Your task to perform on an android device: choose inbox layout in the gmail app Image 0: 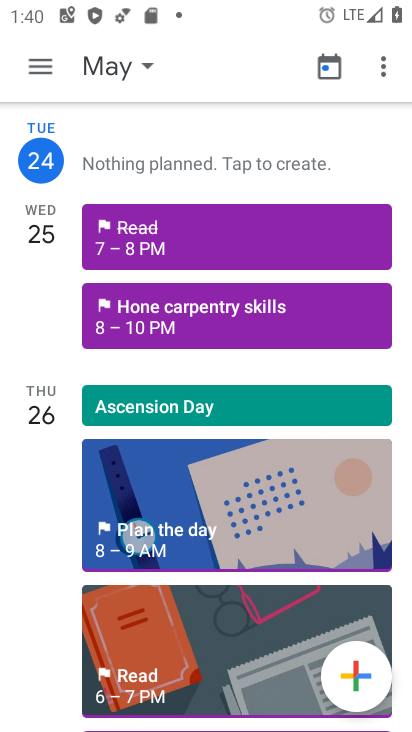
Step 0: press home button
Your task to perform on an android device: choose inbox layout in the gmail app Image 1: 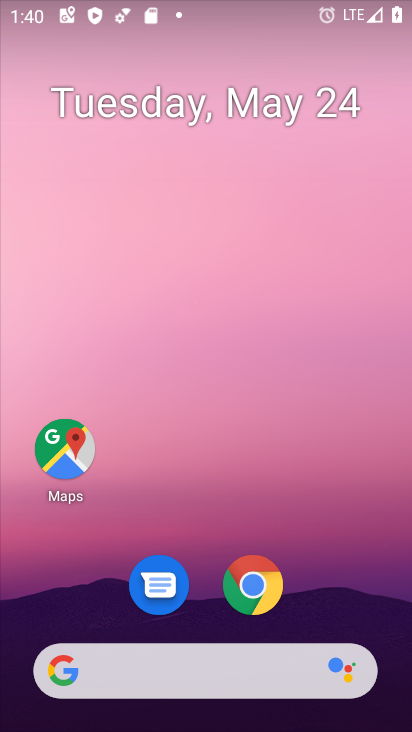
Step 1: drag from (276, 485) to (268, 33)
Your task to perform on an android device: choose inbox layout in the gmail app Image 2: 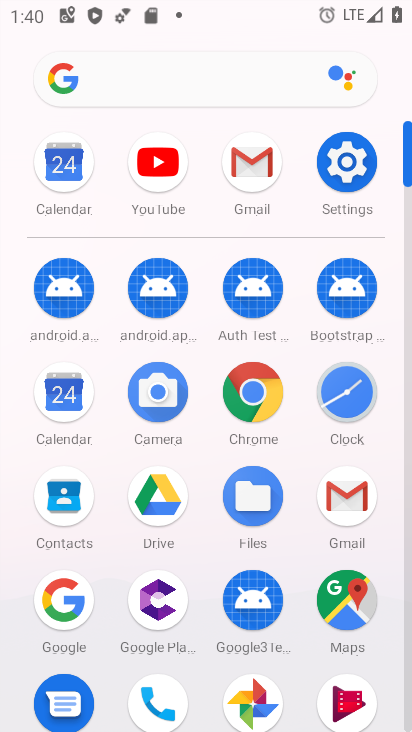
Step 2: click (260, 173)
Your task to perform on an android device: choose inbox layout in the gmail app Image 3: 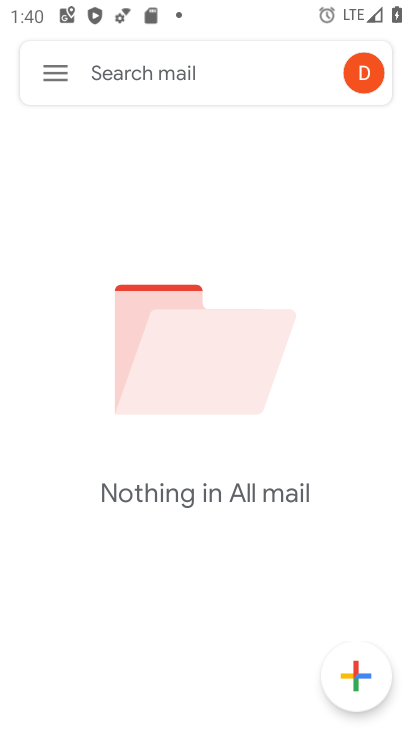
Step 3: click (60, 71)
Your task to perform on an android device: choose inbox layout in the gmail app Image 4: 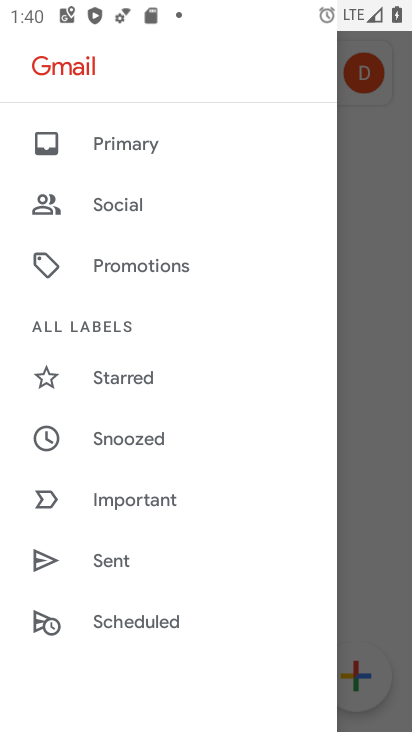
Step 4: drag from (208, 504) to (227, 122)
Your task to perform on an android device: choose inbox layout in the gmail app Image 5: 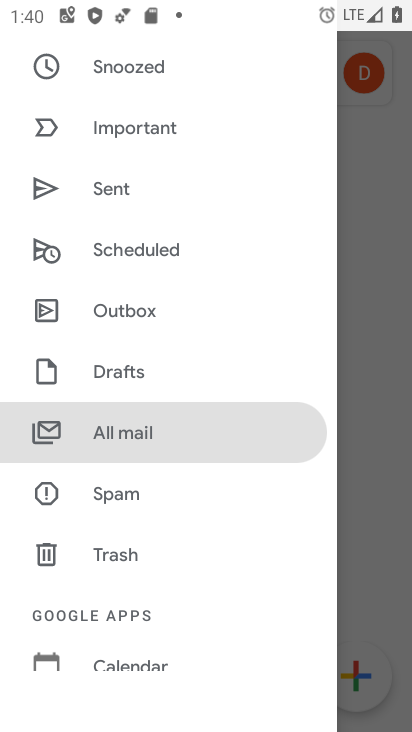
Step 5: drag from (183, 511) to (200, 176)
Your task to perform on an android device: choose inbox layout in the gmail app Image 6: 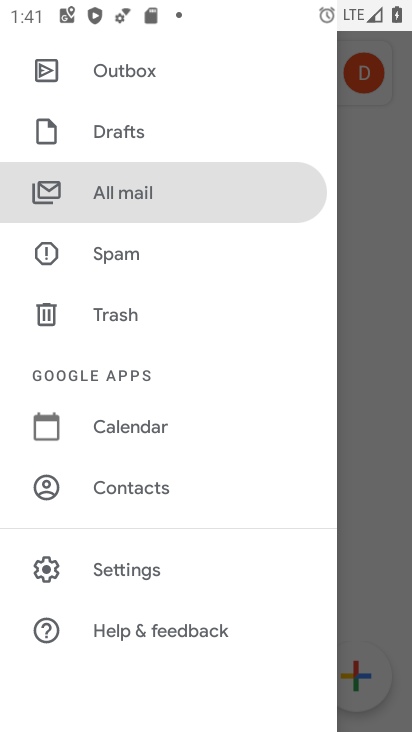
Step 6: click (132, 562)
Your task to perform on an android device: choose inbox layout in the gmail app Image 7: 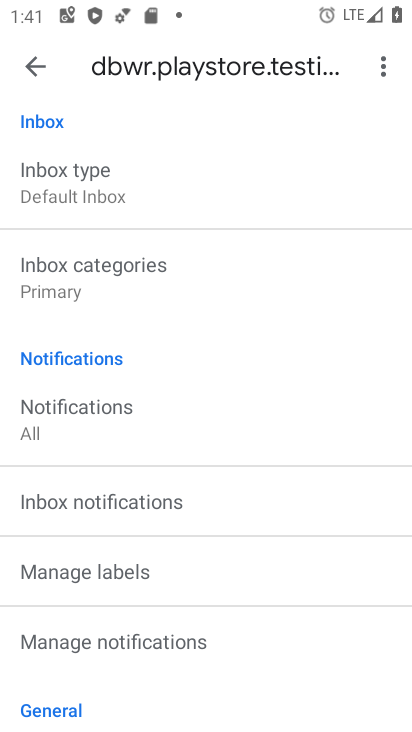
Step 7: click (94, 189)
Your task to perform on an android device: choose inbox layout in the gmail app Image 8: 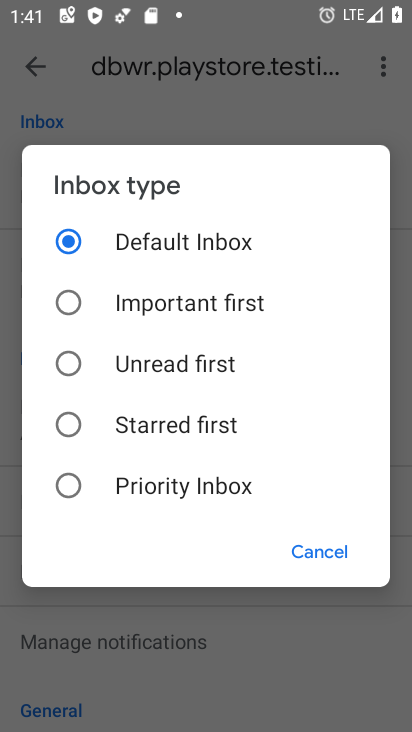
Step 8: click (74, 290)
Your task to perform on an android device: choose inbox layout in the gmail app Image 9: 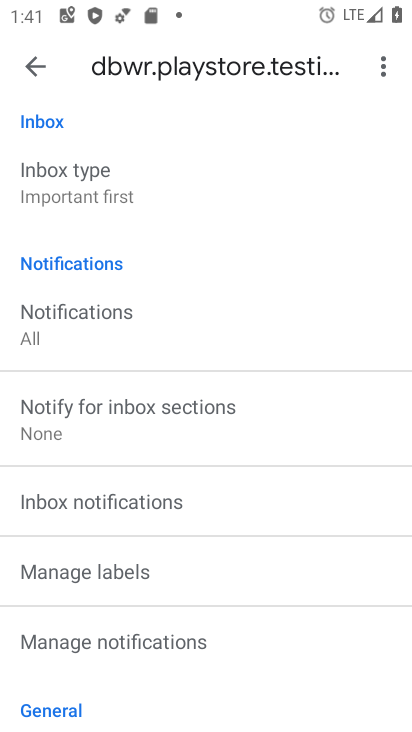
Step 9: task complete